Your task to perform on an android device: Do I have any events this weekend? Image 0: 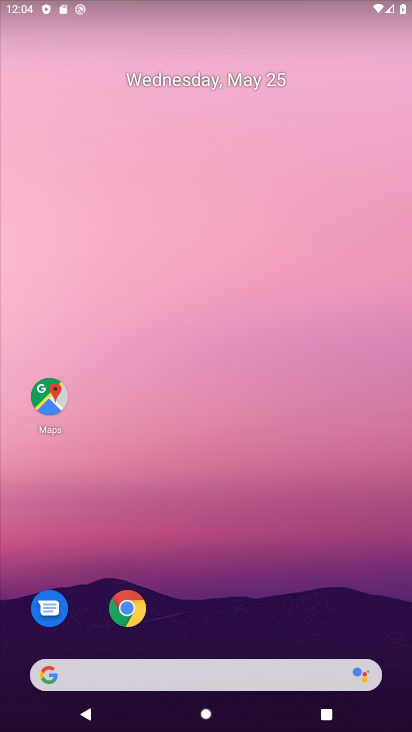
Step 0: drag from (285, 615) to (262, 109)
Your task to perform on an android device: Do I have any events this weekend? Image 1: 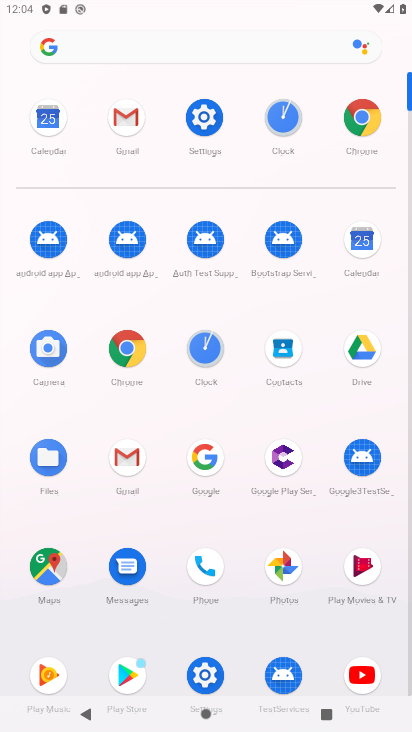
Step 1: click (209, 130)
Your task to perform on an android device: Do I have any events this weekend? Image 2: 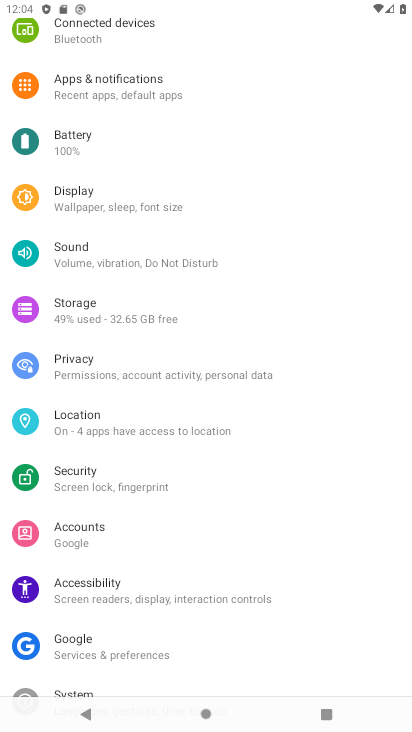
Step 2: press home button
Your task to perform on an android device: Do I have any events this weekend? Image 3: 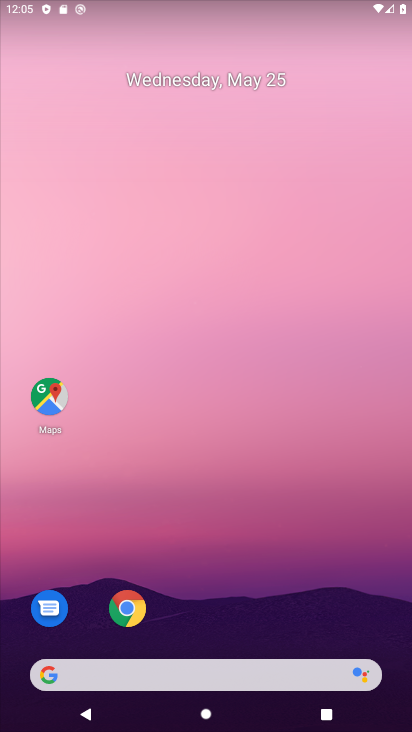
Step 3: drag from (239, 634) to (239, 237)
Your task to perform on an android device: Do I have any events this weekend? Image 4: 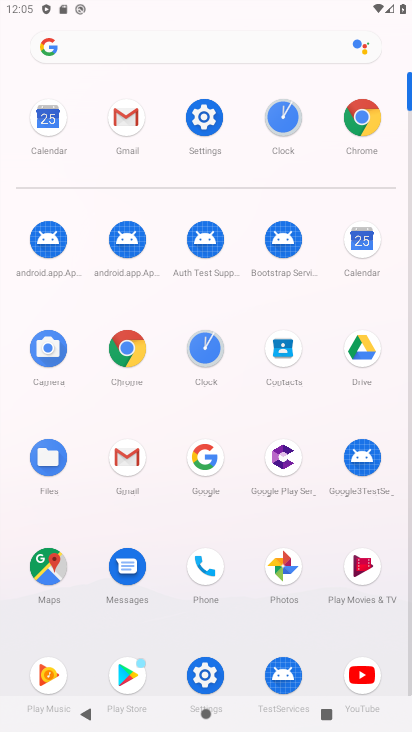
Step 4: click (68, 135)
Your task to perform on an android device: Do I have any events this weekend? Image 5: 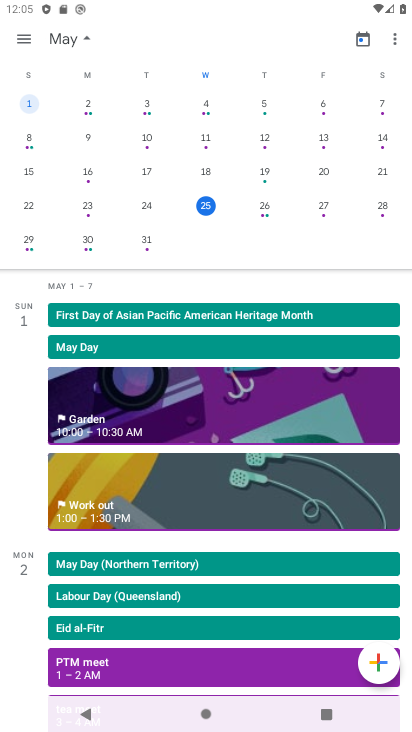
Step 5: task complete